Your task to perform on an android device: uninstall "Google Chat" Image 0: 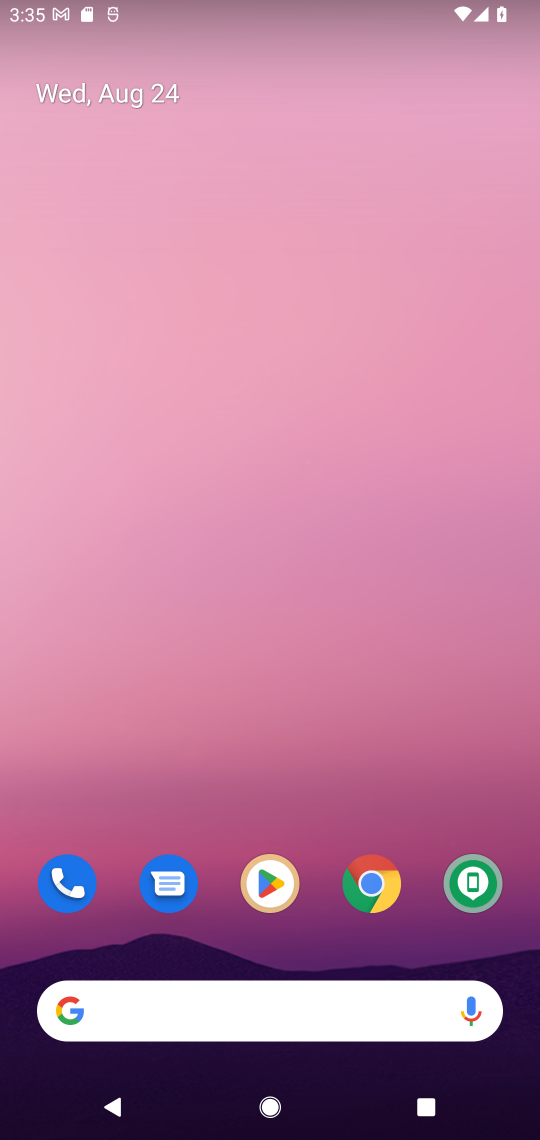
Step 0: drag from (211, 583) to (211, 475)
Your task to perform on an android device: uninstall "Google Chat" Image 1: 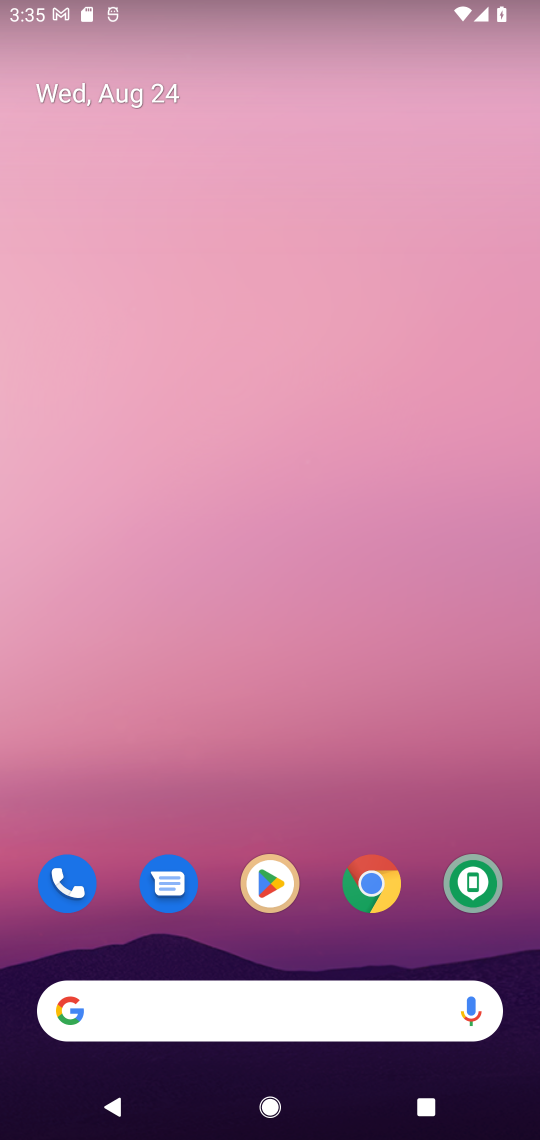
Step 1: click (260, 266)
Your task to perform on an android device: uninstall "Google Chat" Image 2: 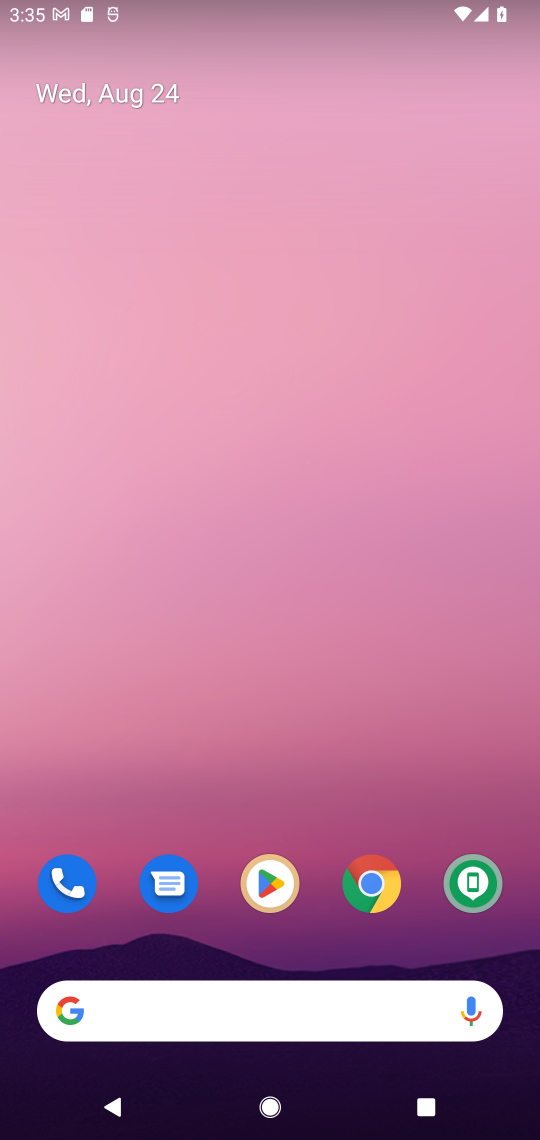
Step 2: drag from (253, 985) to (261, 427)
Your task to perform on an android device: uninstall "Google Chat" Image 3: 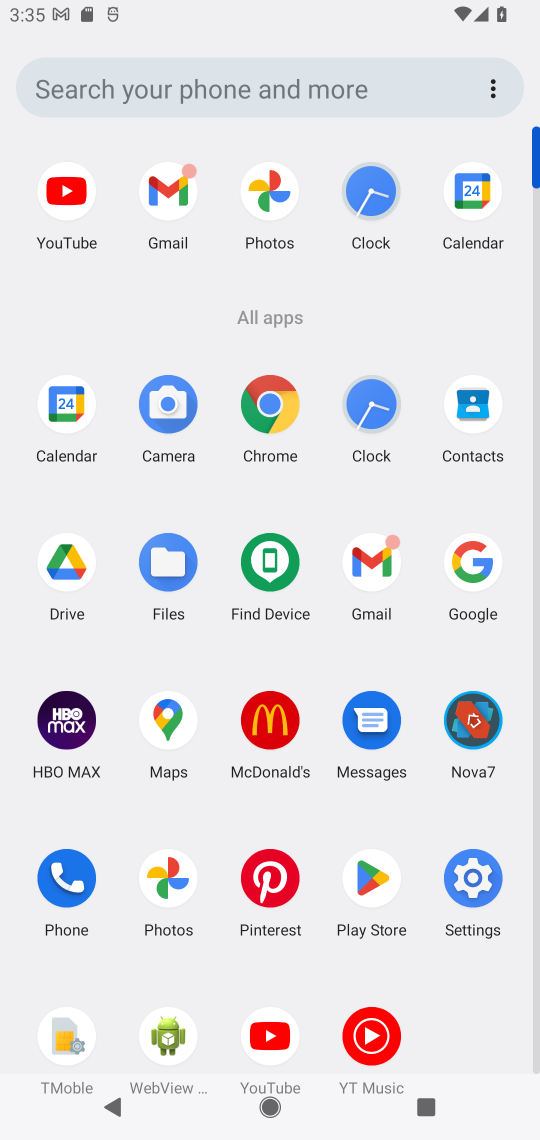
Step 3: click (364, 876)
Your task to perform on an android device: uninstall "Google Chat" Image 4: 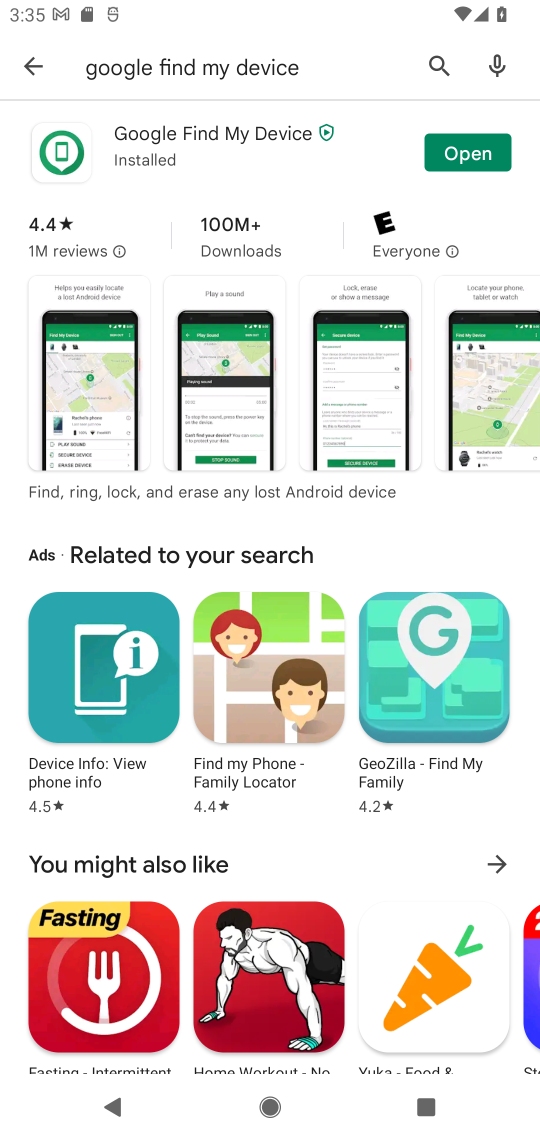
Step 4: click (438, 60)
Your task to perform on an android device: uninstall "Google Chat" Image 5: 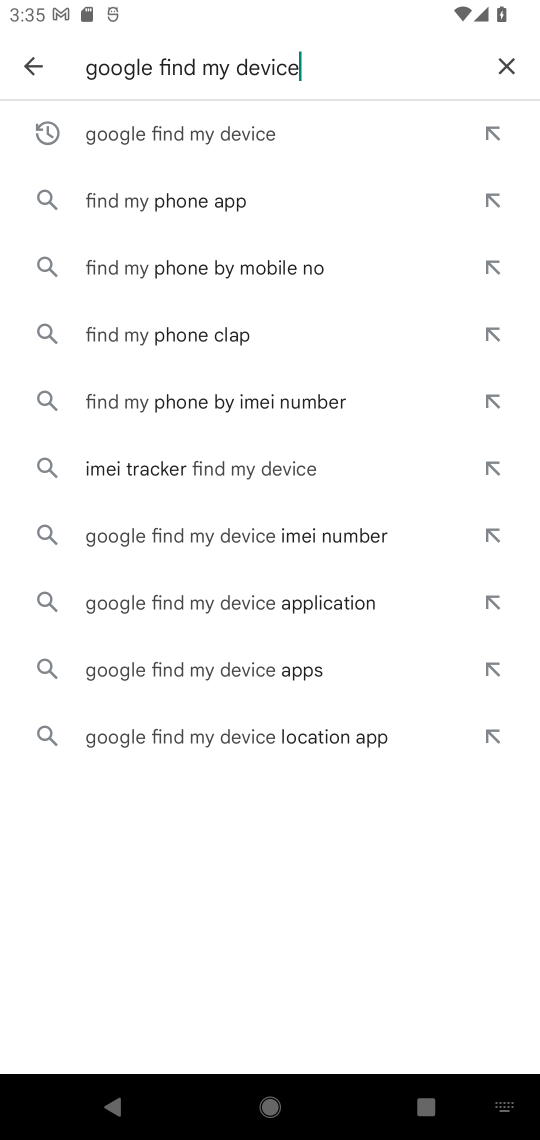
Step 5: click (496, 64)
Your task to perform on an android device: uninstall "Google Chat" Image 6: 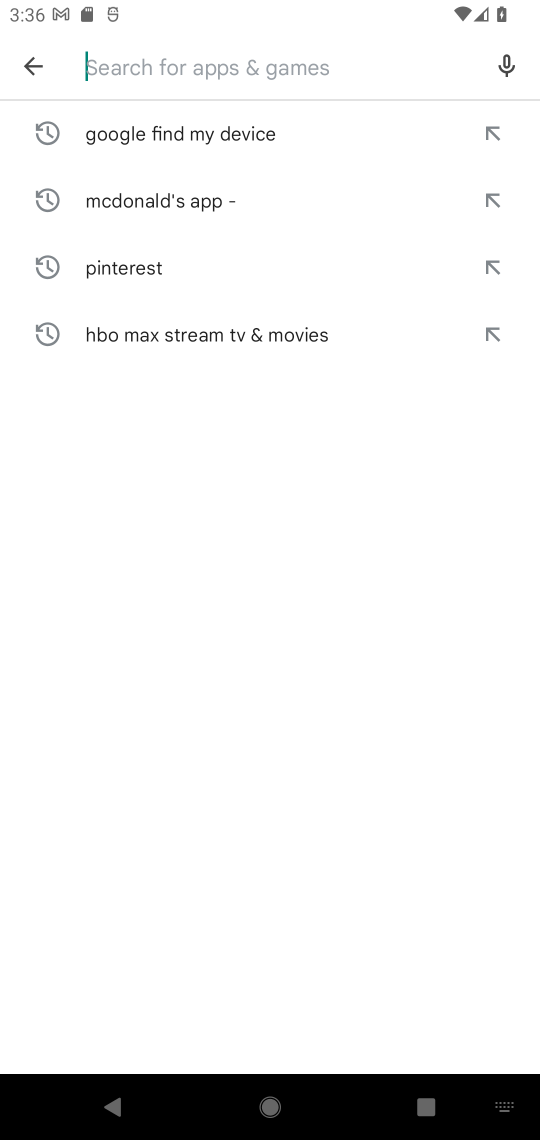
Step 6: type "Google Chat"
Your task to perform on an android device: uninstall "Google Chat" Image 7: 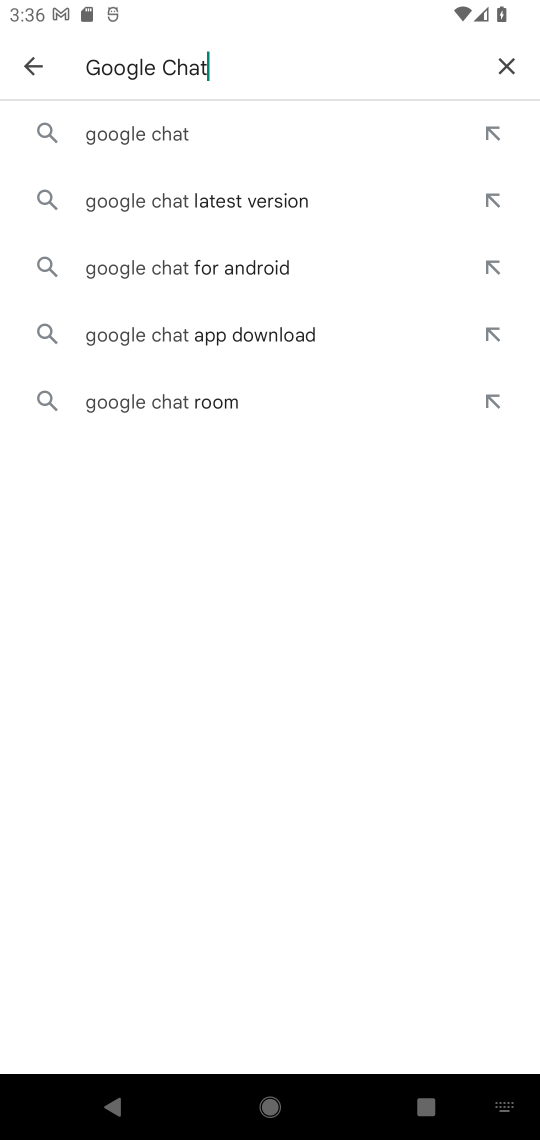
Step 7: click (125, 132)
Your task to perform on an android device: uninstall "Google Chat" Image 8: 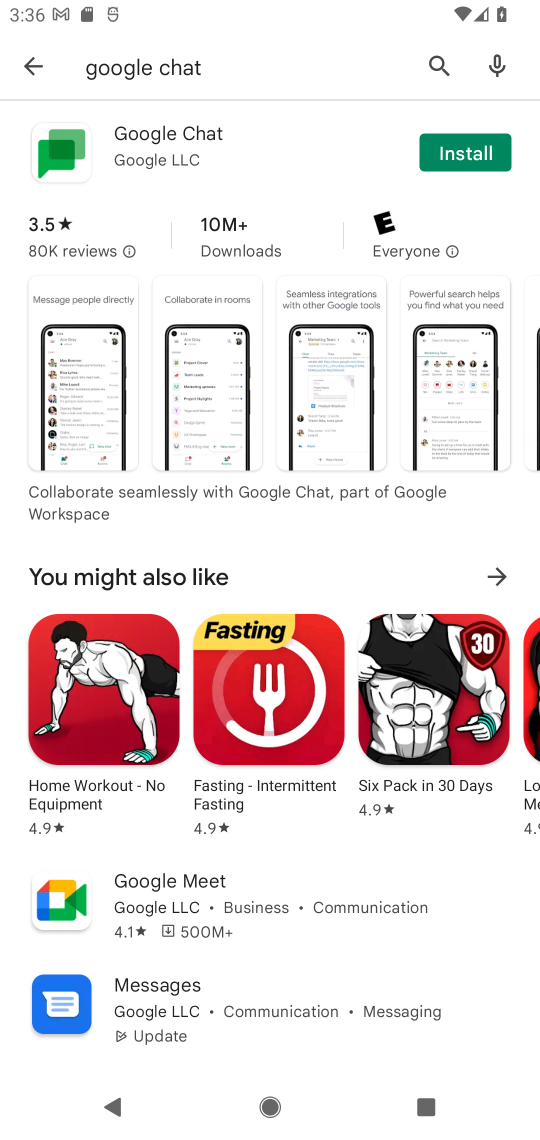
Step 8: click (459, 154)
Your task to perform on an android device: uninstall "Google Chat" Image 9: 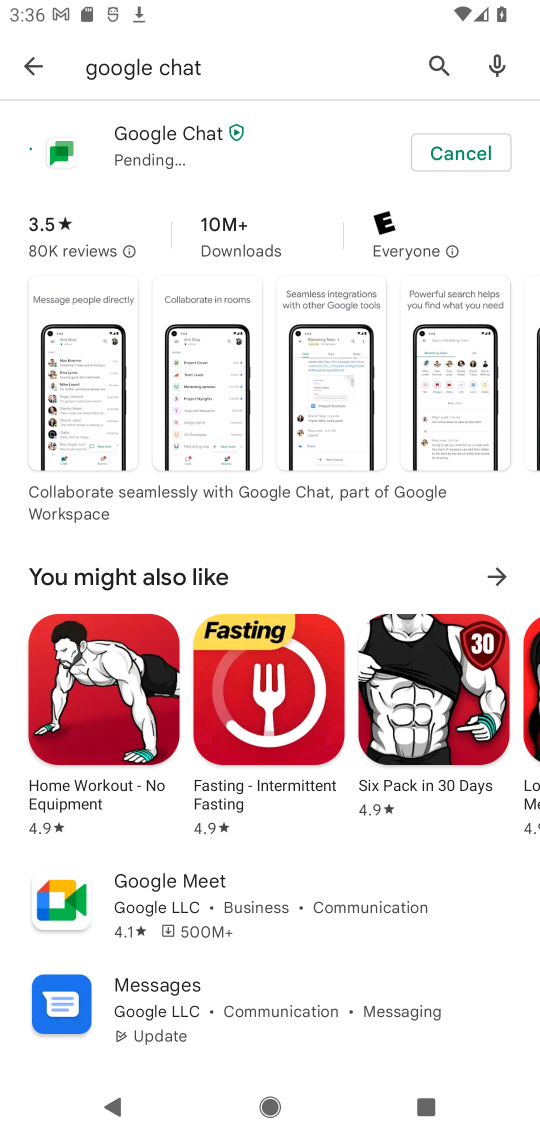
Step 9: click (434, 152)
Your task to perform on an android device: uninstall "Google Chat" Image 10: 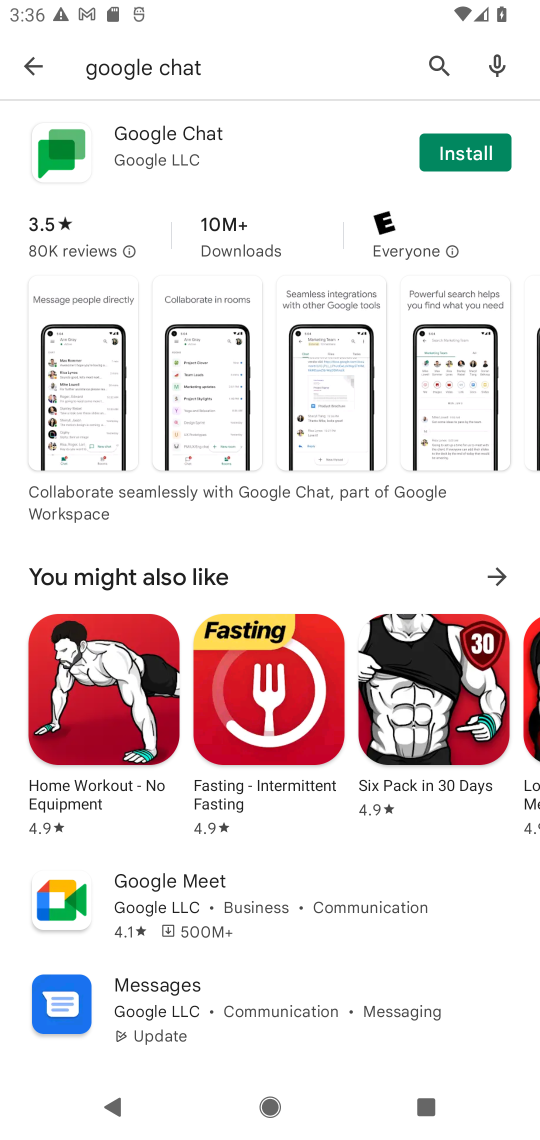
Step 10: task complete